Your task to perform on an android device: What's on my calendar today? Image 0: 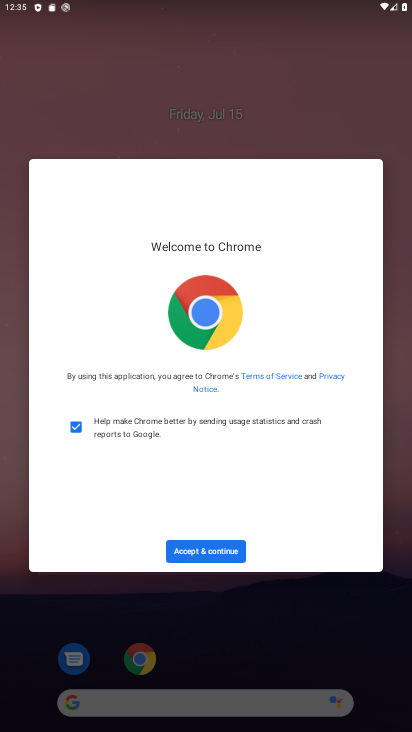
Step 0: press home button
Your task to perform on an android device: What's on my calendar today? Image 1: 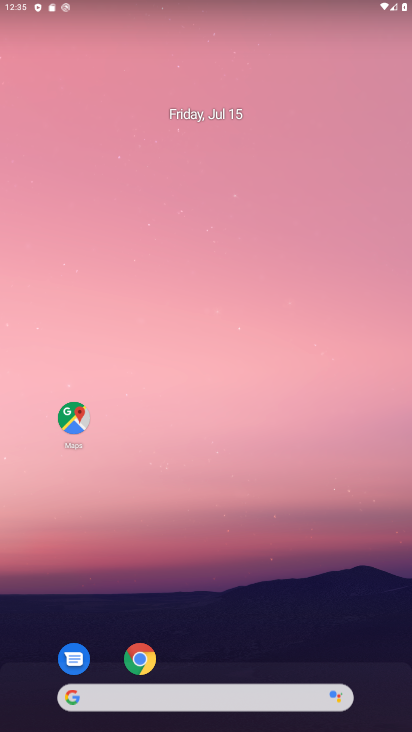
Step 1: drag from (266, 655) to (270, 210)
Your task to perform on an android device: What's on my calendar today? Image 2: 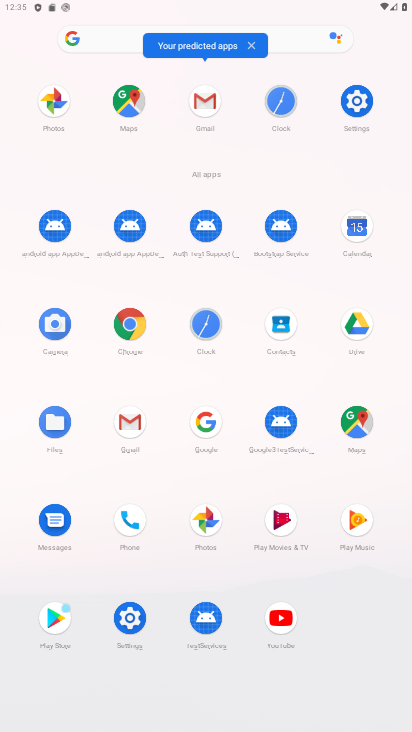
Step 2: click (353, 226)
Your task to perform on an android device: What's on my calendar today? Image 3: 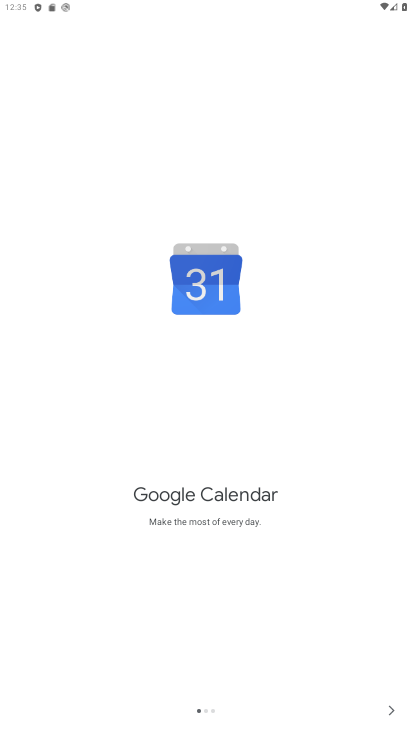
Step 3: click (397, 711)
Your task to perform on an android device: What's on my calendar today? Image 4: 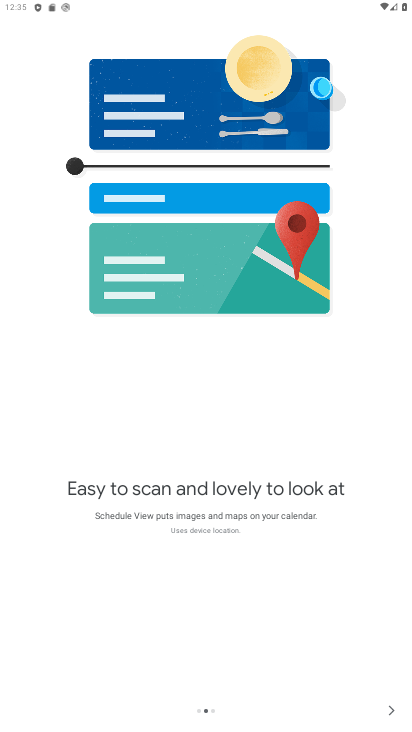
Step 4: click (397, 711)
Your task to perform on an android device: What's on my calendar today? Image 5: 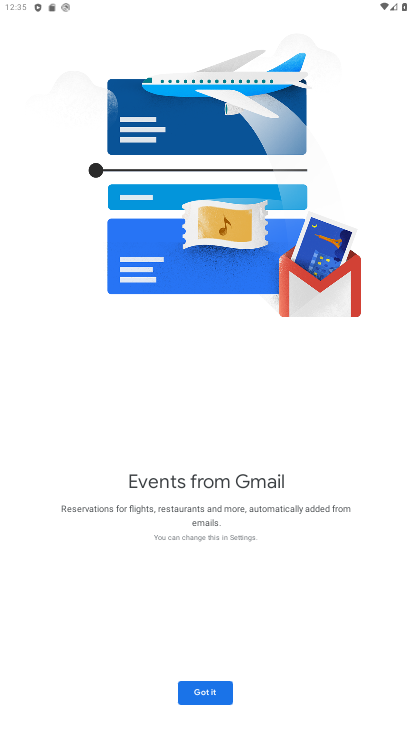
Step 5: click (218, 691)
Your task to perform on an android device: What's on my calendar today? Image 6: 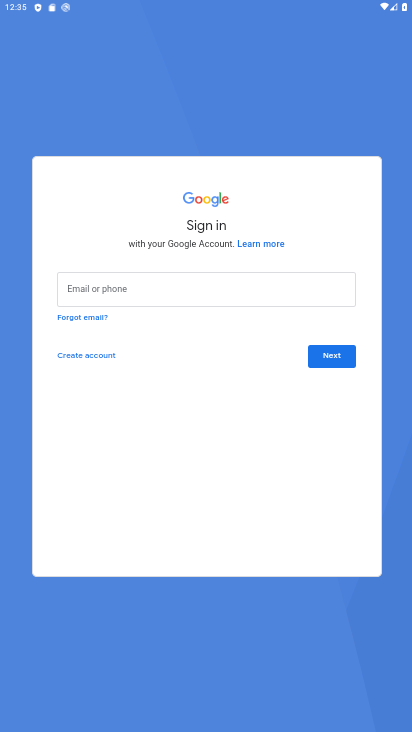
Step 6: task complete